Your task to perform on an android device: change the clock display to digital Image 0: 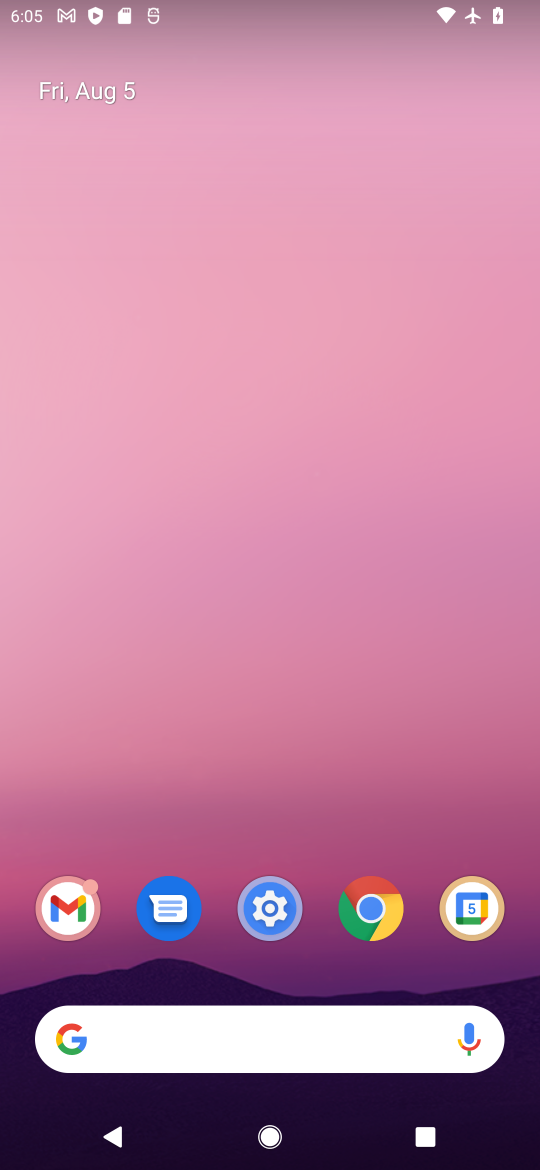
Step 0: click (259, 916)
Your task to perform on an android device: change the clock display to digital Image 1: 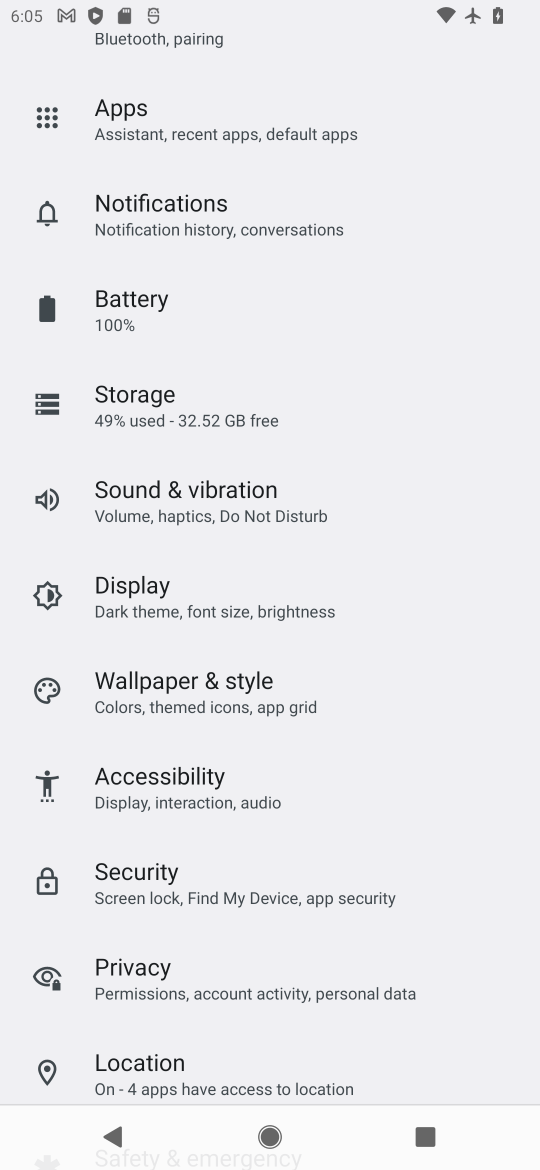
Step 1: press back button
Your task to perform on an android device: change the clock display to digital Image 2: 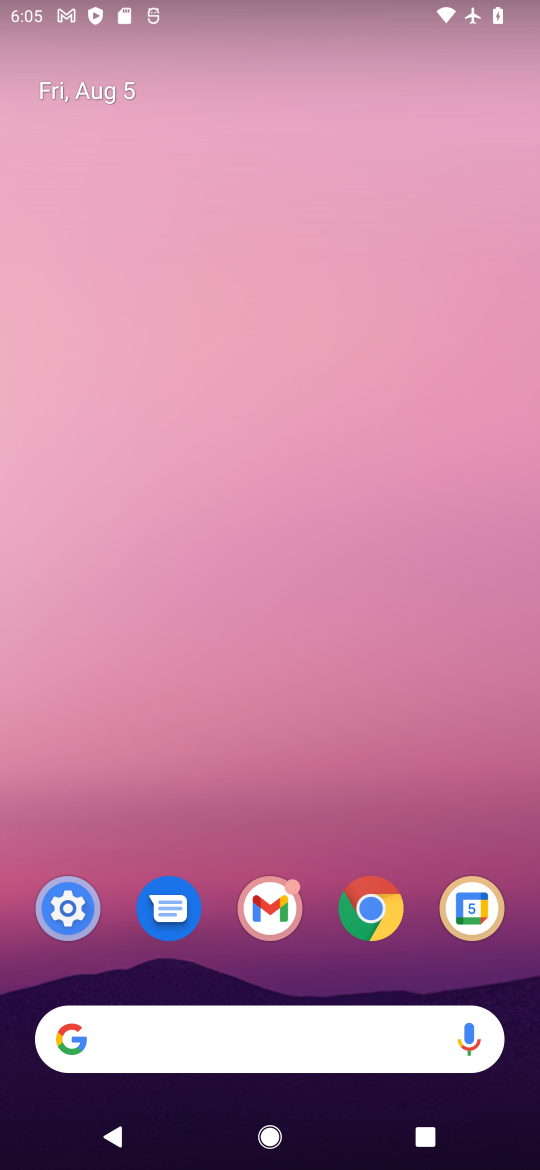
Step 2: drag from (289, 806) to (259, 305)
Your task to perform on an android device: change the clock display to digital Image 3: 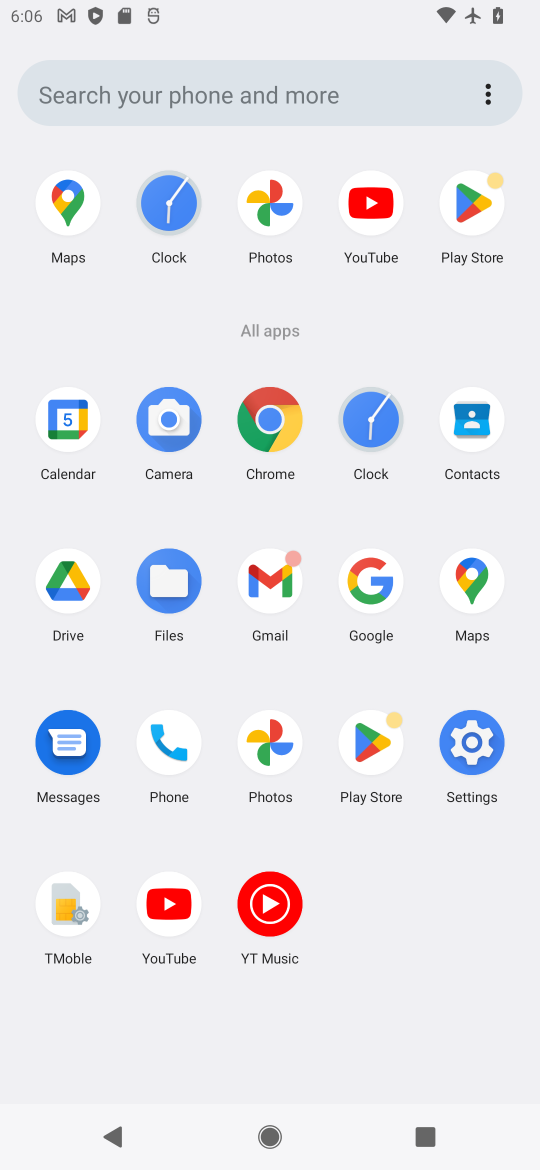
Step 3: click (369, 430)
Your task to perform on an android device: change the clock display to digital Image 4: 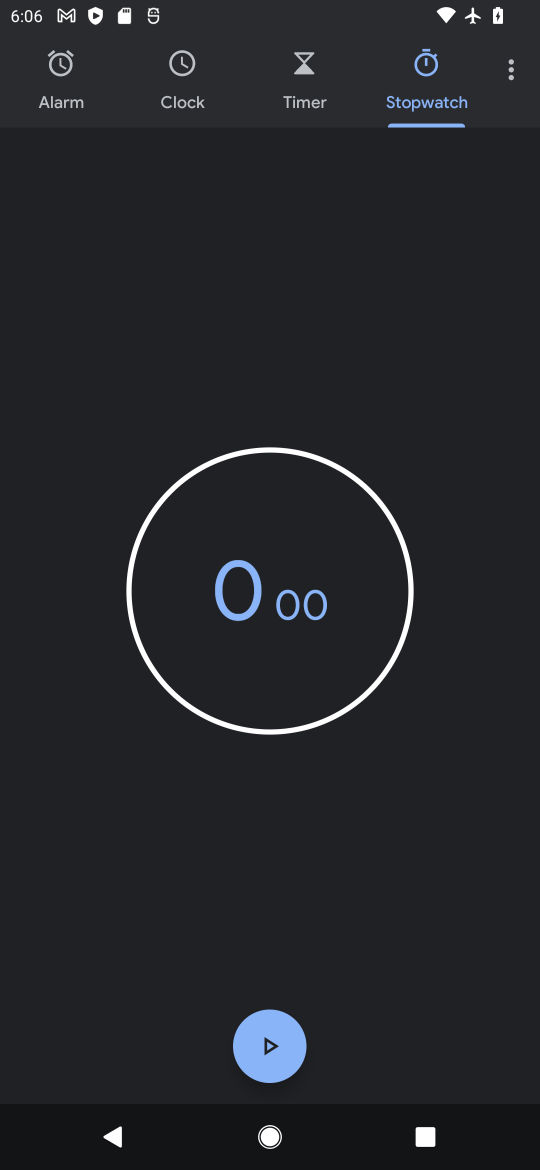
Step 4: click (507, 74)
Your task to perform on an android device: change the clock display to digital Image 5: 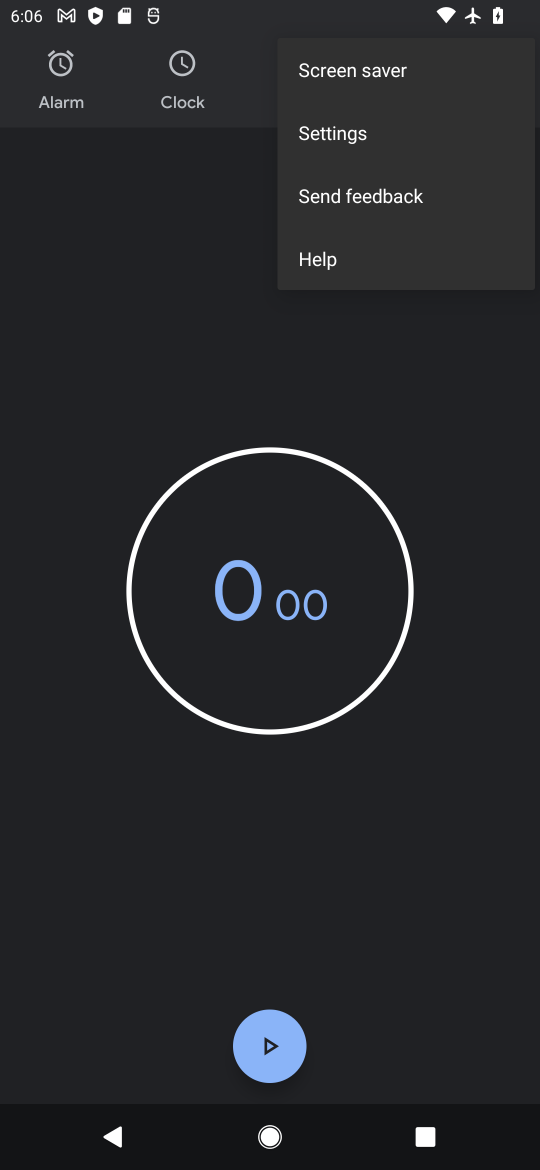
Step 5: click (342, 129)
Your task to perform on an android device: change the clock display to digital Image 6: 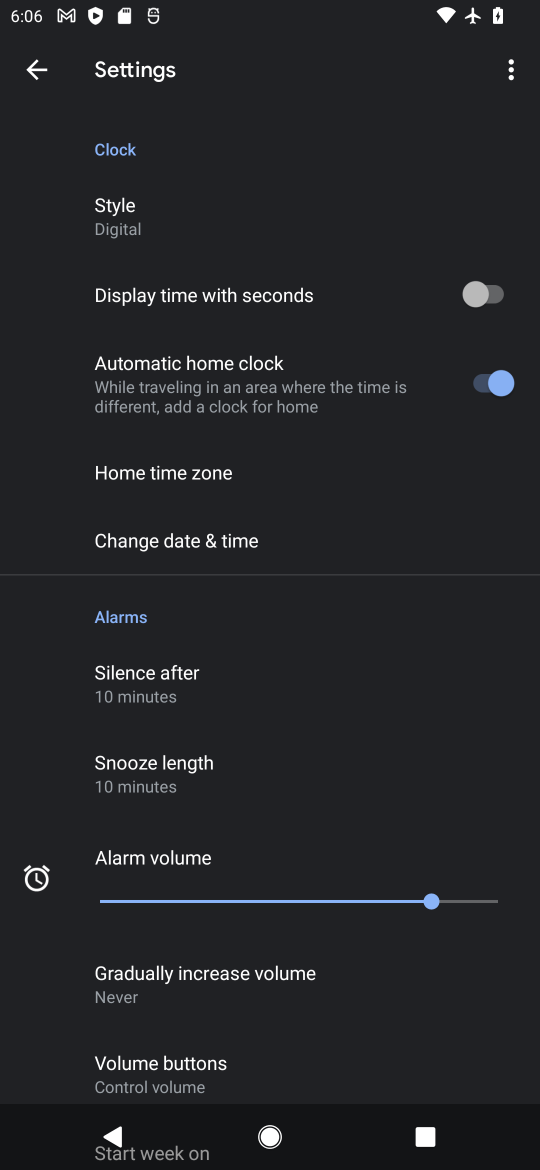
Step 6: task complete